Your task to perform on an android device: snooze an email in the gmail app Image 0: 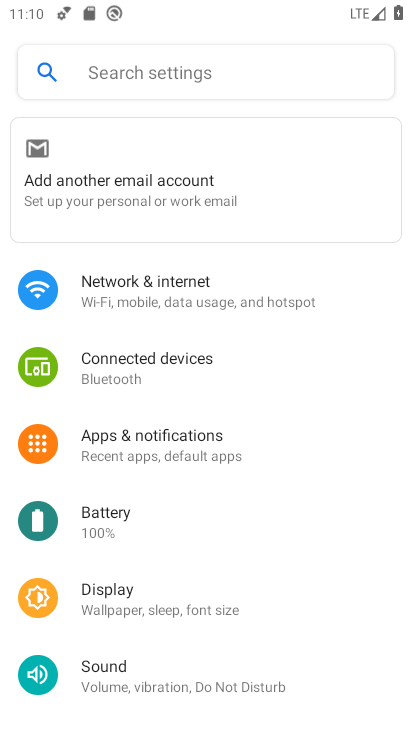
Step 0: drag from (196, 620) to (209, 188)
Your task to perform on an android device: snooze an email in the gmail app Image 1: 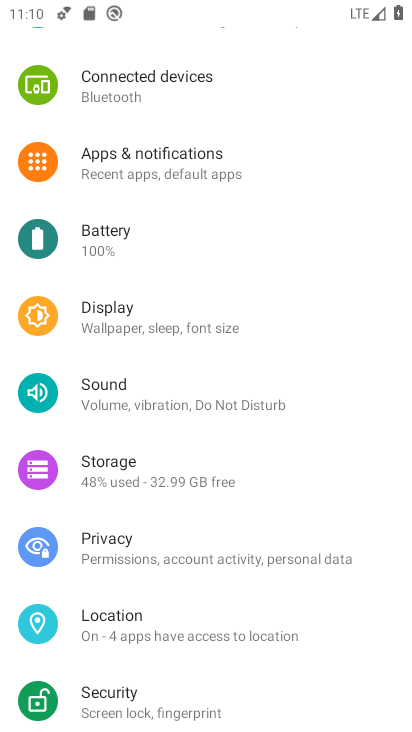
Step 1: press home button
Your task to perform on an android device: snooze an email in the gmail app Image 2: 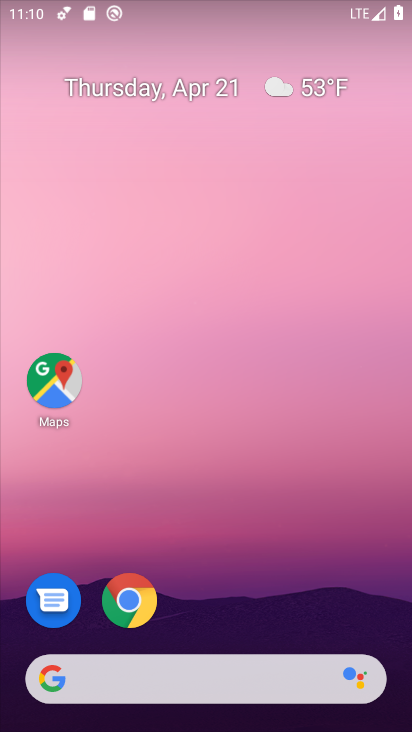
Step 2: drag from (241, 598) to (207, 35)
Your task to perform on an android device: snooze an email in the gmail app Image 3: 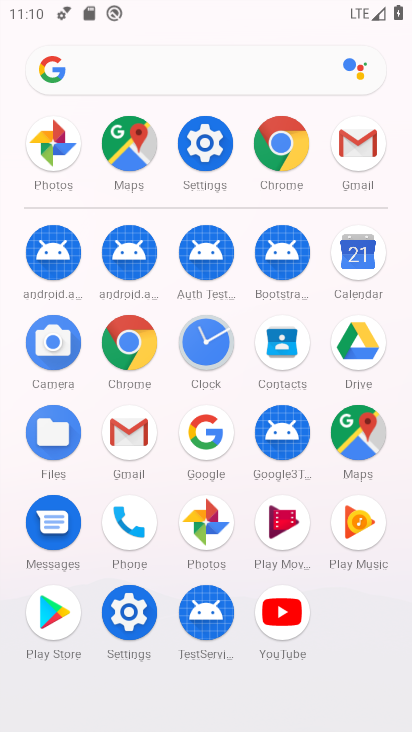
Step 3: click (358, 155)
Your task to perform on an android device: snooze an email in the gmail app Image 4: 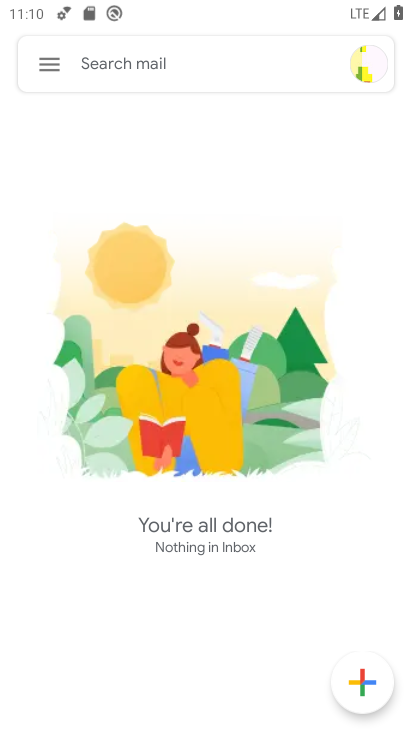
Step 4: click (46, 64)
Your task to perform on an android device: snooze an email in the gmail app Image 5: 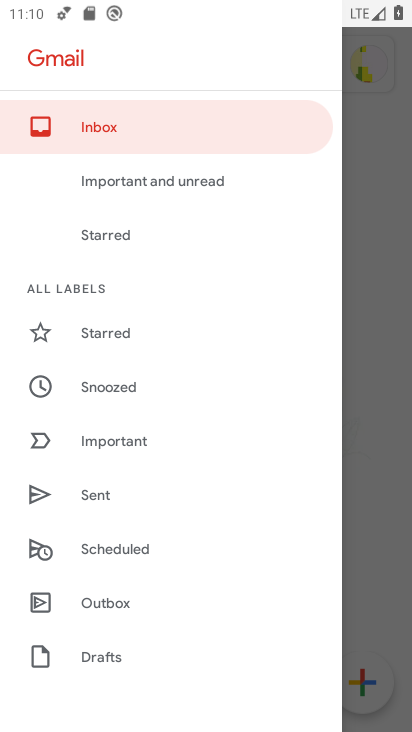
Step 5: task complete